Your task to perform on an android device: Add apple airpods to the cart on newegg Image 0: 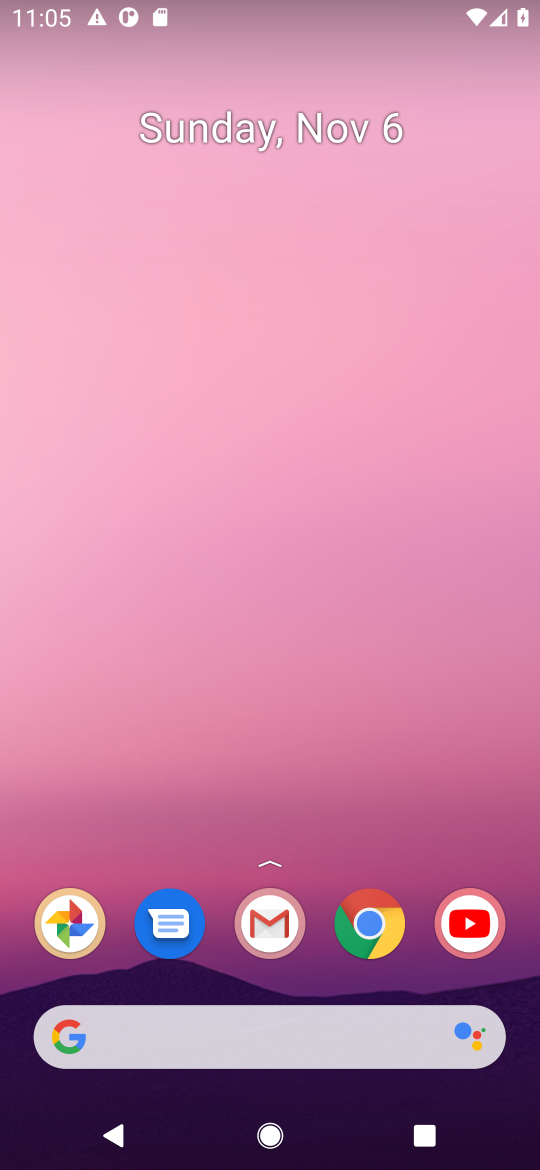
Step 0: click (376, 924)
Your task to perform on an android device: Add apple airpods to the cart on newegg Image 1: 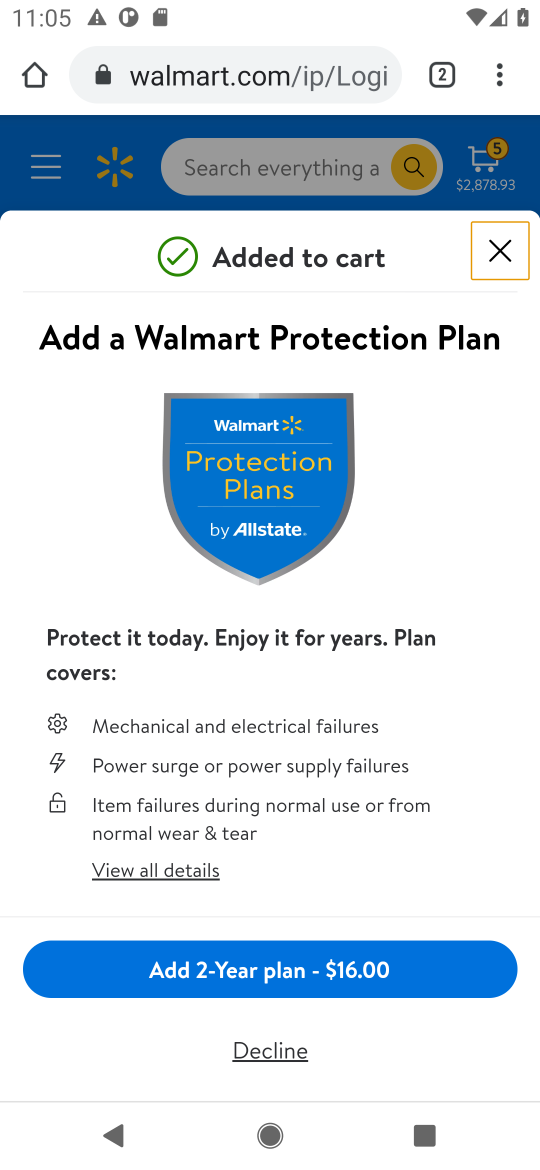
Step 1: click (214, 82)
Your task to perform on an android device: Add apple airpods to the cart on newegg Image 2: 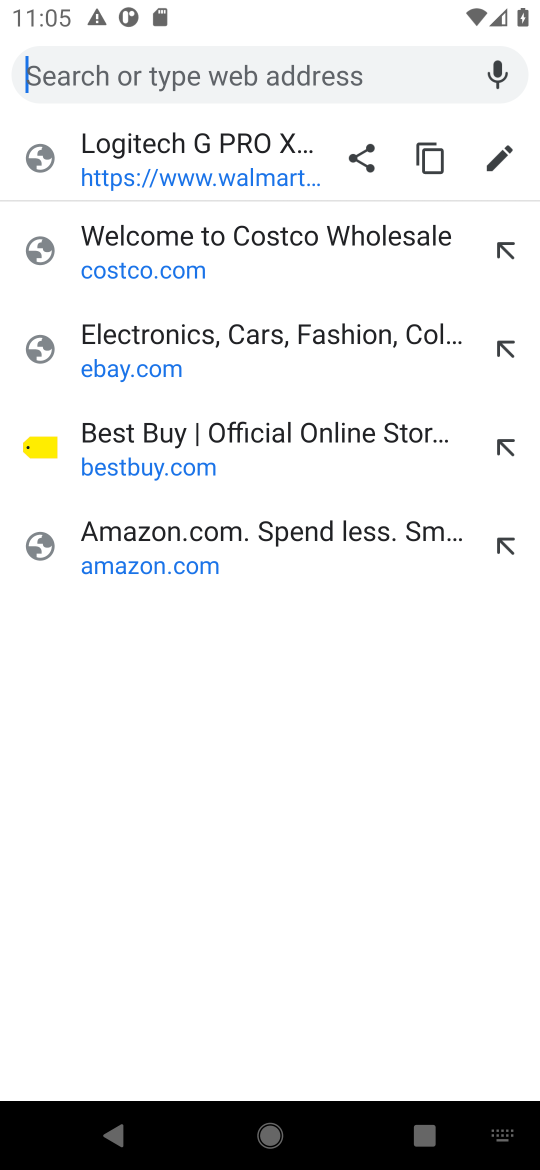
Step 2: type "newegg.com"
Your task to perform on an android device: Add apple airpods to the cart on newegg Image 3: 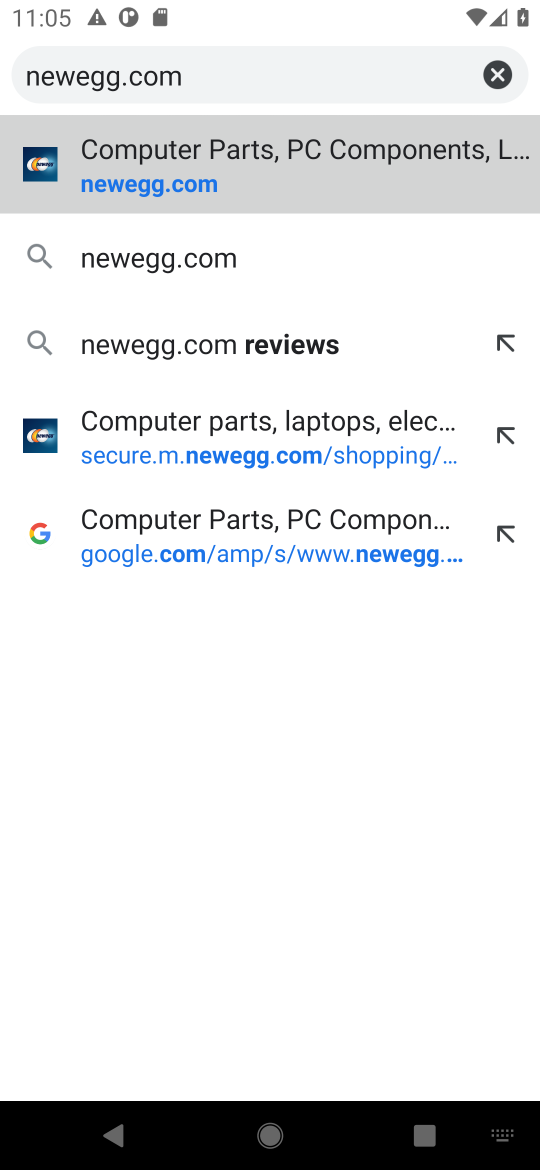
Step 3: click (163, 187)
Your task to perform on an android device: Add apple airpods to the cart on newegg Image 4: 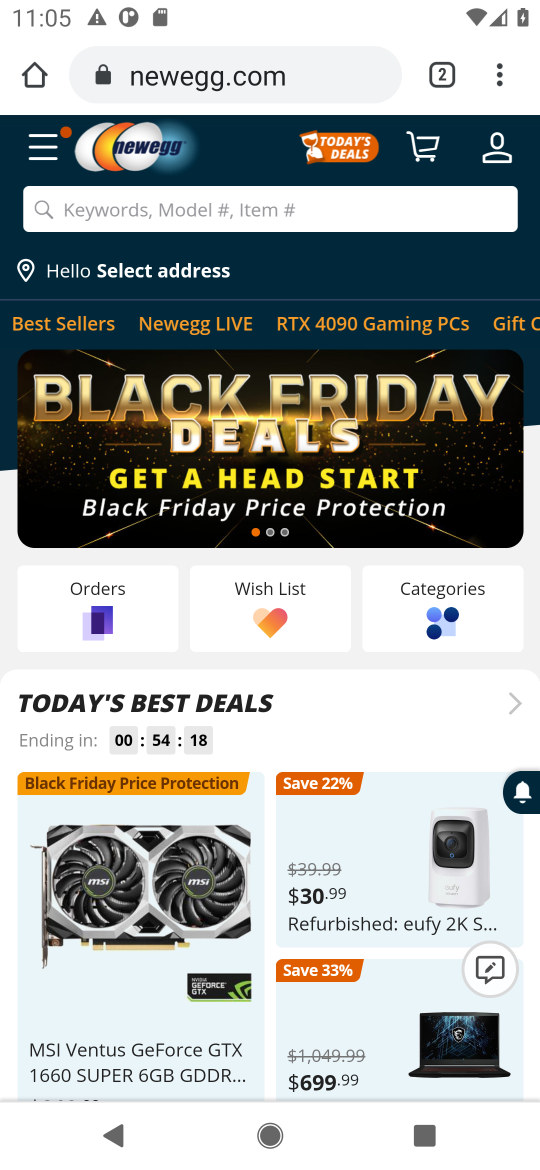
Step 4: click (166, 212)
Your task to perform on an android device: Add apple airpods to the cart on newegg Image 5: 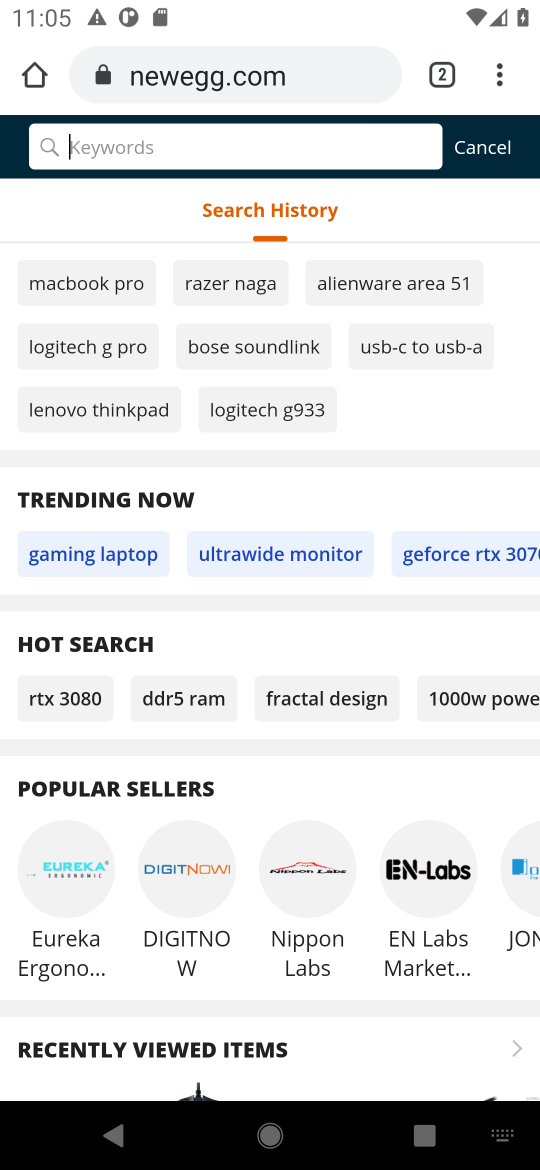
Step 5: click (179, 150)
Your task to perform on an android device: Add apple airpods to the cart on newegg Image 6: 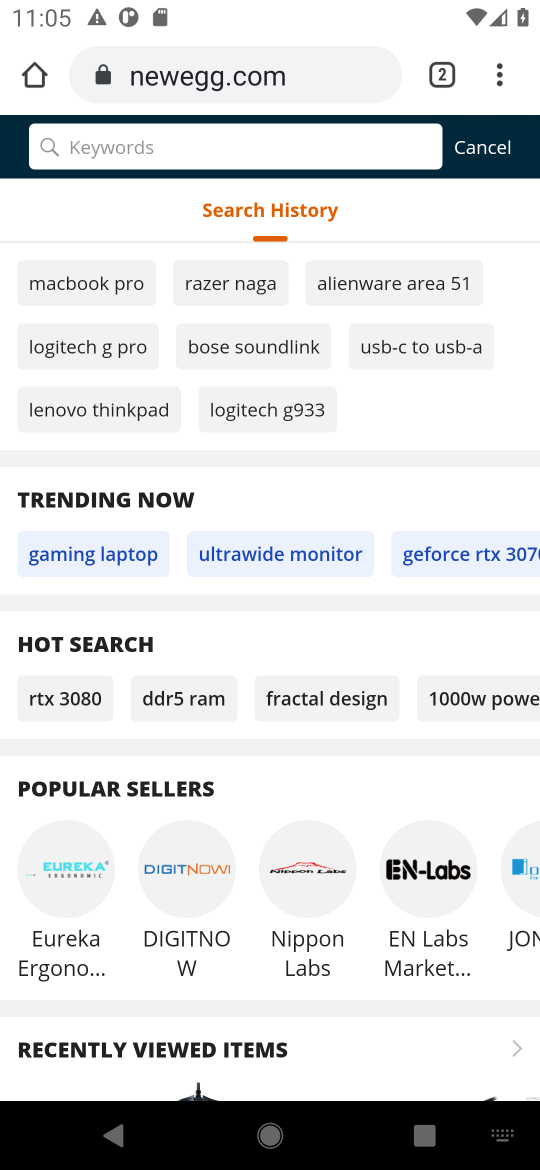
Step 6: type "apple airpods"
Your task to perform on an android device: Add apple airpods to the cart on newegg Image 7: 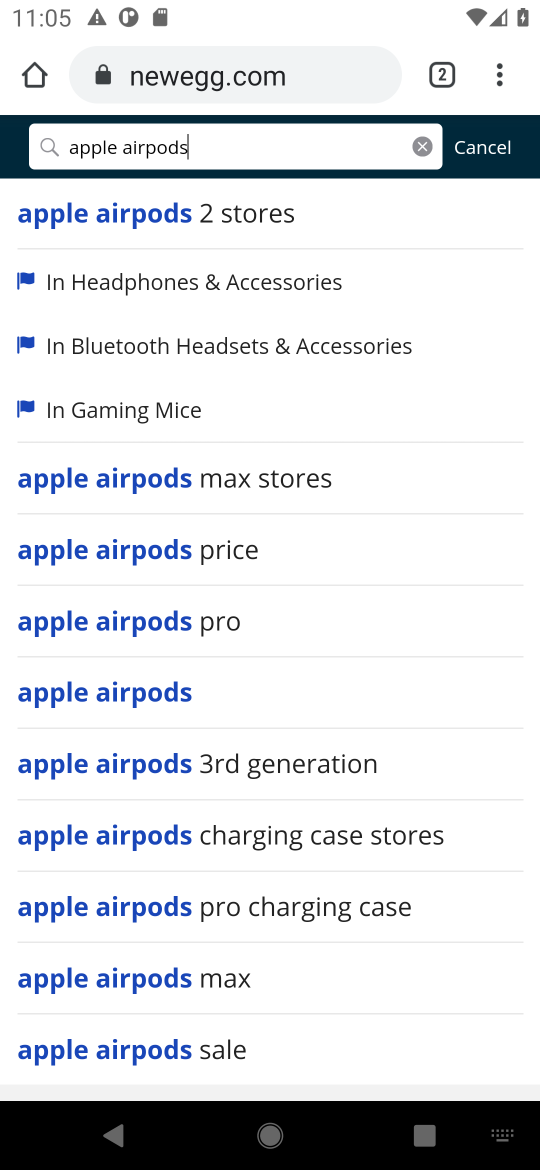
Step 7: click (125, 702)
Your task to perform on an android device: Add apple airpods to the cart on newegg Image 8: 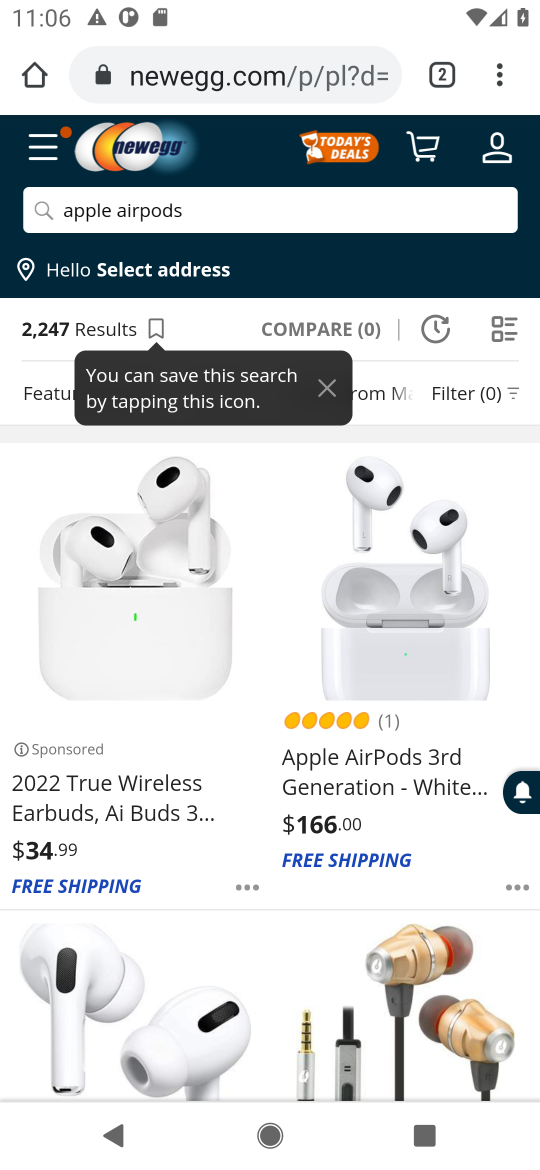
Step 8: click (421, 623)
Your task to perform on an android device: Add apple airpods to the cart on newegg Image 9: 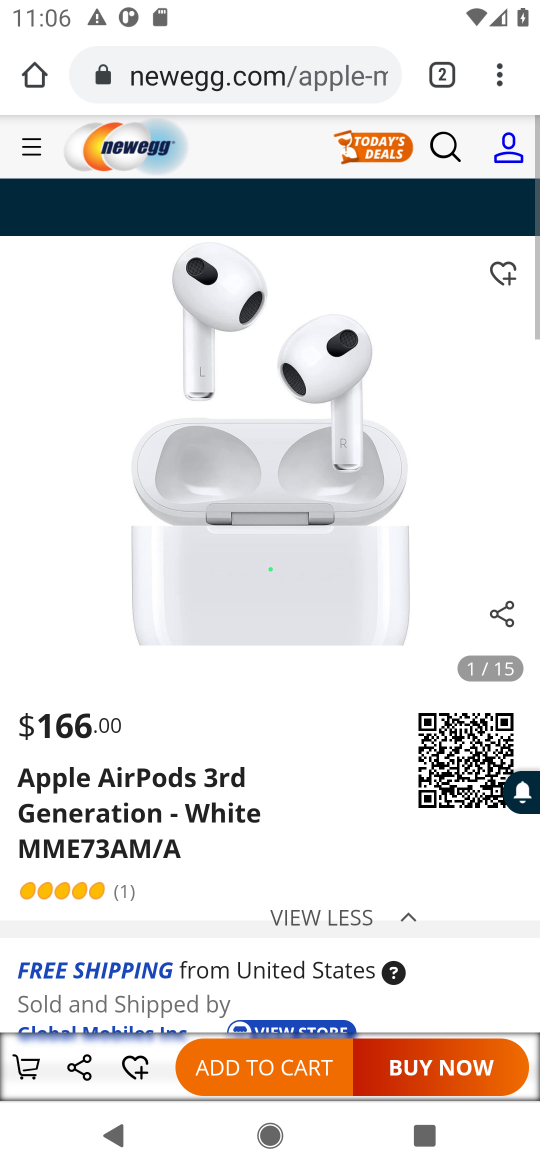
Step 9: click (276, 1061)
Your task to perform on an android device: Add apple airpods to the cart on newegg Image 10: 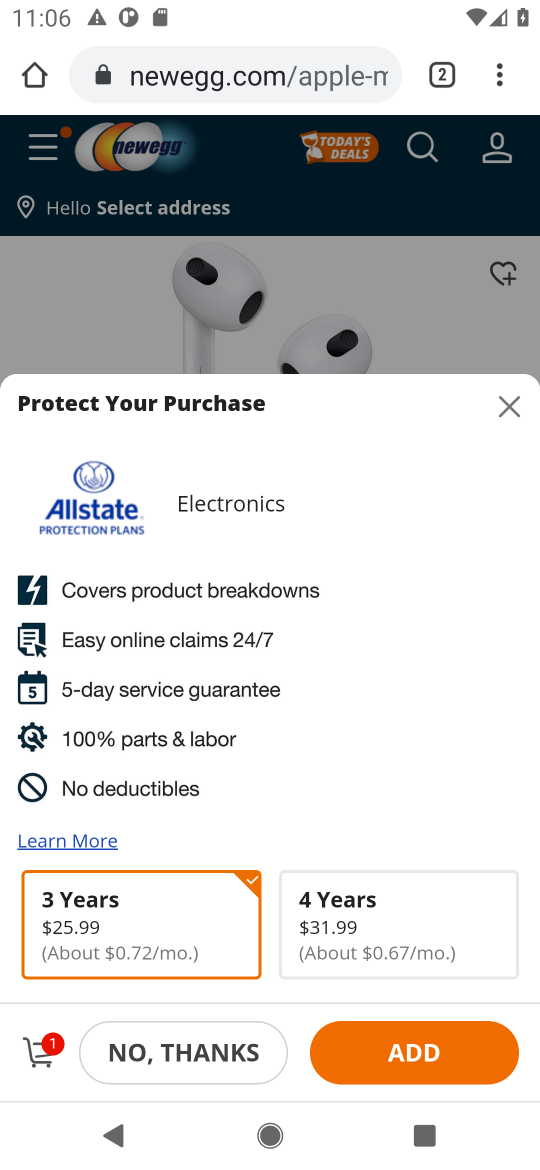
Step 10: task complete